Your task to perform on an android device: visit the assistant section in the google photos Image 0: 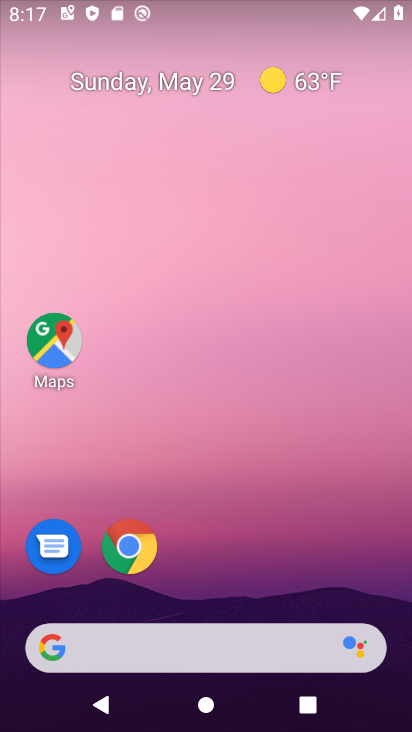
Step 0: press home button
Your task to perform on an android device: visit the assistant section in the google photos Image 1: 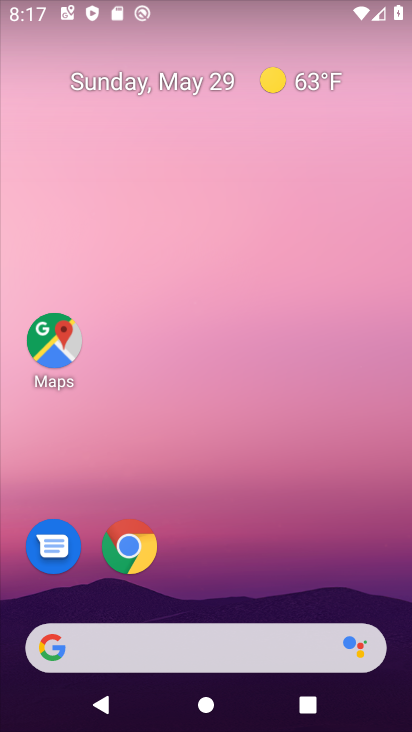
Step 1: drag from (128, 657) to (375, 18)
Your task to perform on an android device: visit the assistant section in the google photos Image 2: 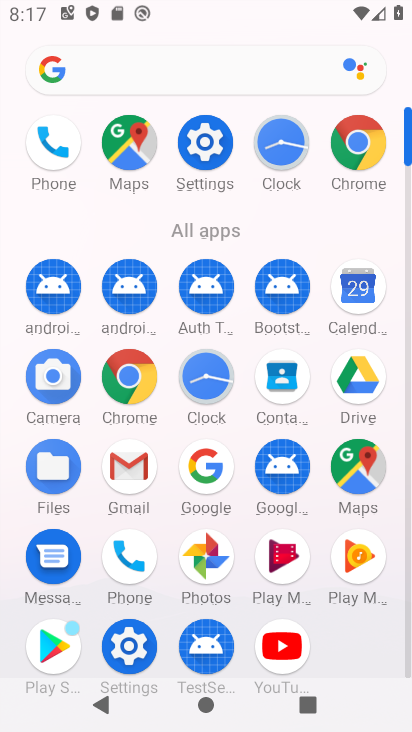
Step 2: click (203, 556)
Your task to perform on an android device: visit the assistant section in the google photos Image 3: 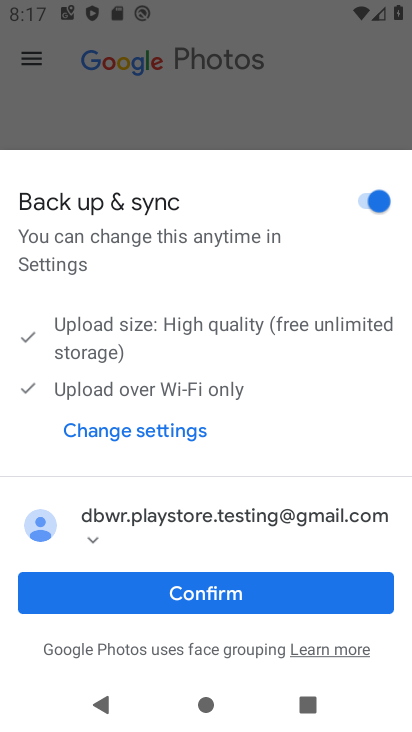
Step 3: click (227, 581)
Your task to perform on an android device: visit the assistant section in the google photos Image 4: 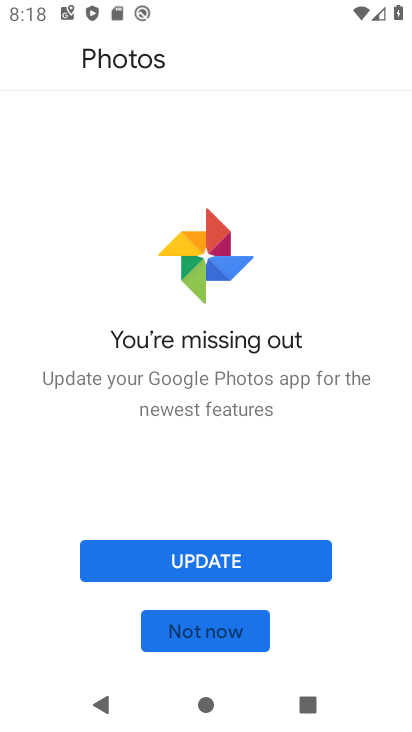
Step 4: click (177, 560)
Your task to perform on an android device: visit the assistant section in the google photos Image 5: 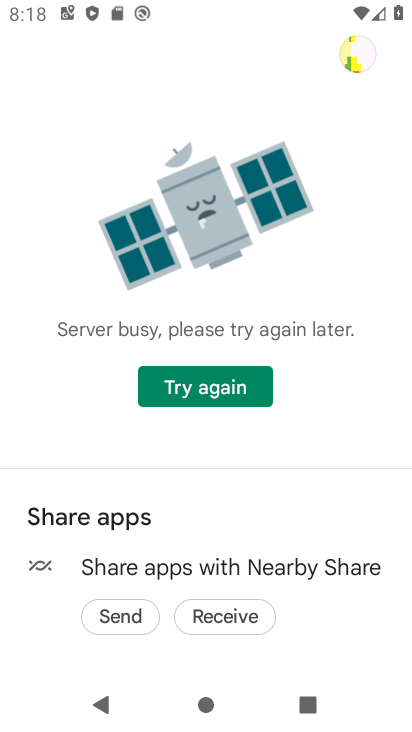
Step 5: click (215, 389)
Your task to perform on an android device: visit the assistant section in the google photos Image 6: 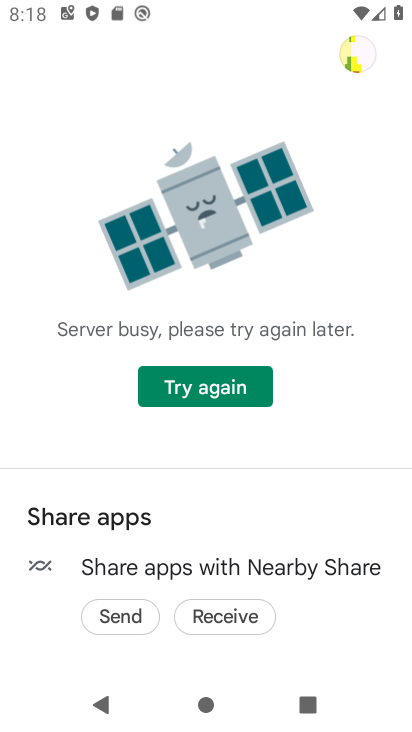
Step 6: task complete